Your task to perform on an android device: turn off location history Image 0: 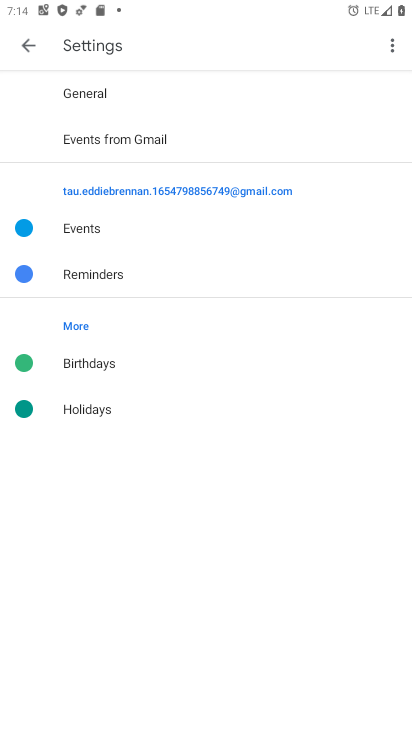
Step 0: press home button
Your task to perform on an android device: turn off location history Image 1: 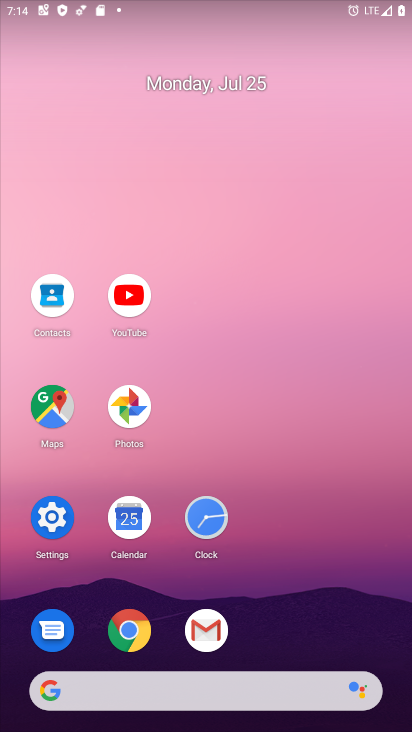
Step 1: click (47, 407)
Your task to perform on an android device: turn off location history Image 2: 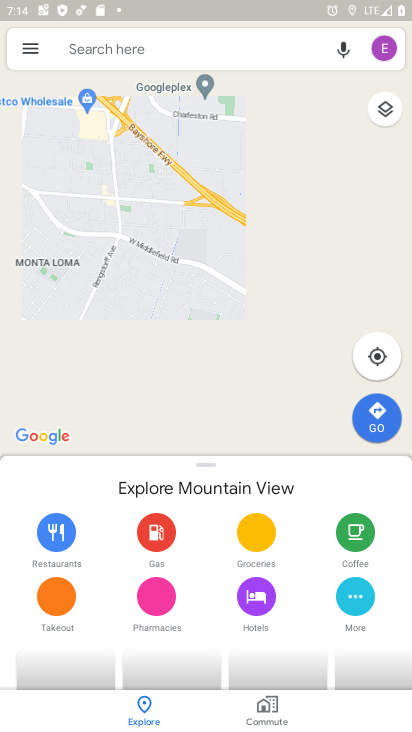
Step 2: click (23, 45)
Your task to perform on an android device: turn off location history Image 3: 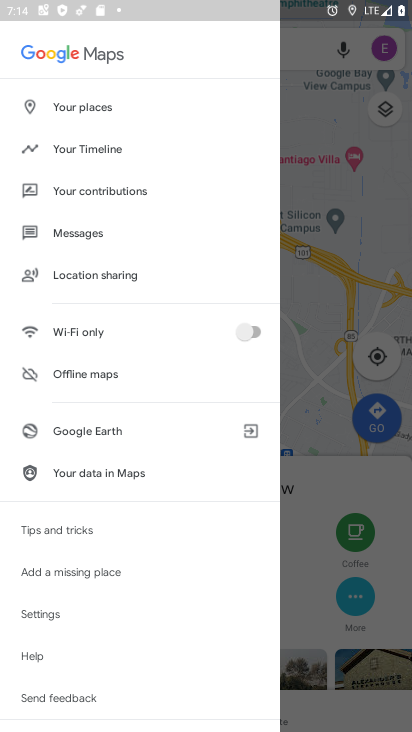
Step 3: click (97, 146)
Your task to perform on an android device: turn off location history Image 4: 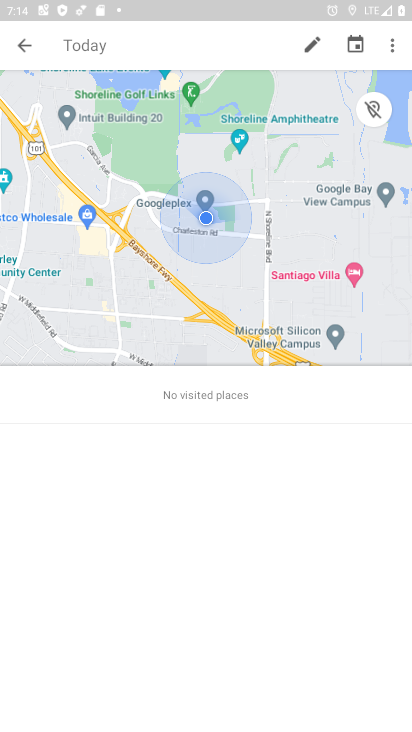
Step 4: click (393, 48)
Your task to perform on an android device: turn off location history Image 5: 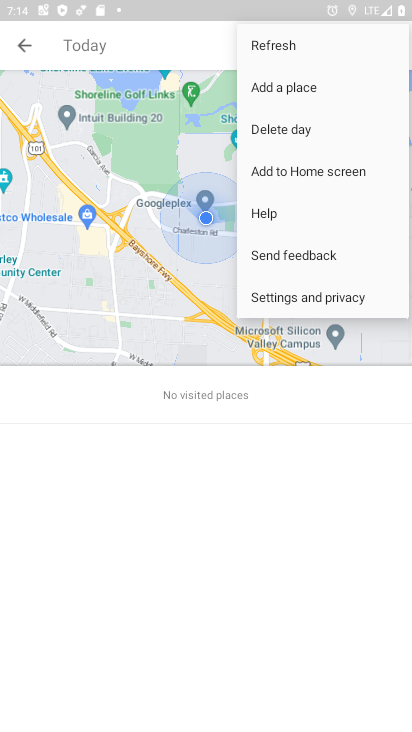
Step 5: click (312, 298)
Your task to perform on an android device: turn off location history Image 6: 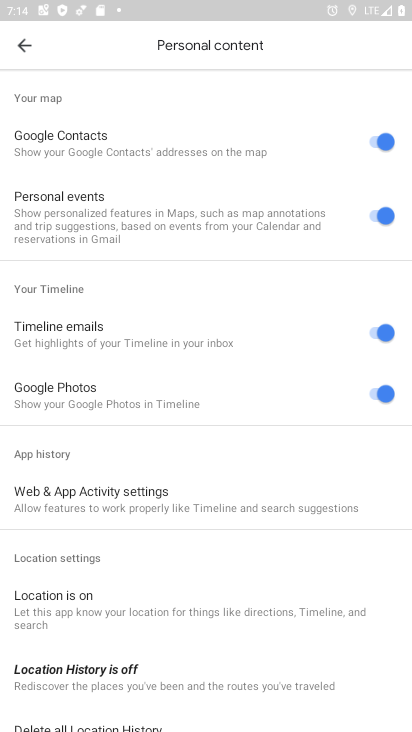
Step 6: click (75, 664)
Your task to perform on an android device: turn off location history Image 7: 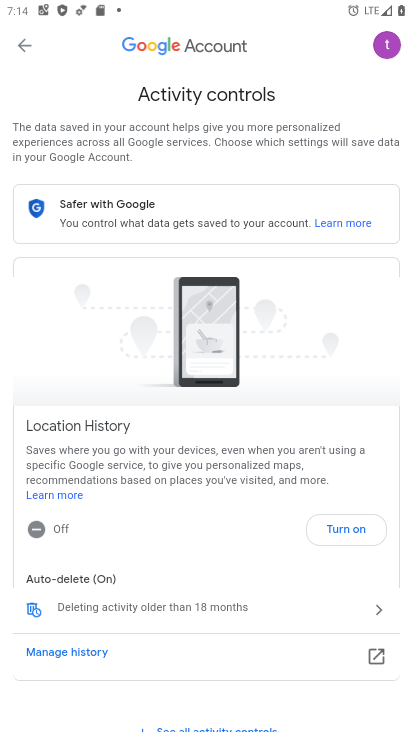
Step 7: task complete